Your task to perform on an android device: check android version Image 0: 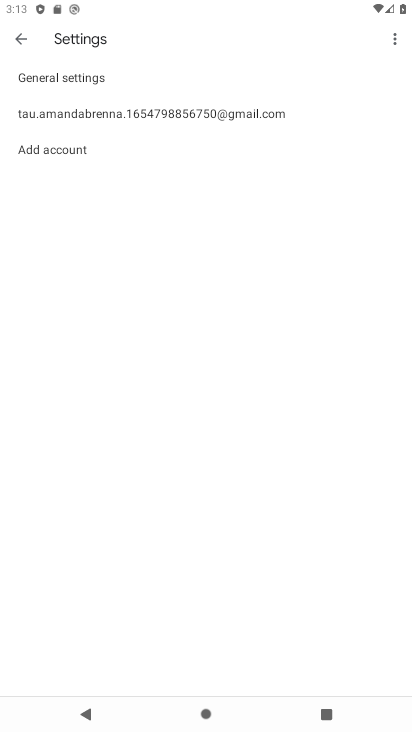
Step 0: press home button
Your task to perform on an android device: check android version Image 1: 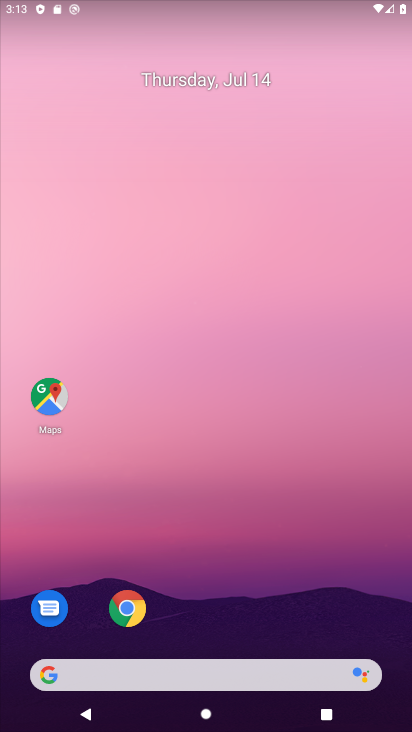
Step 1: drag from (185, 633) to (197, 195)
Your task to perform on an android device: check android version Image 2: 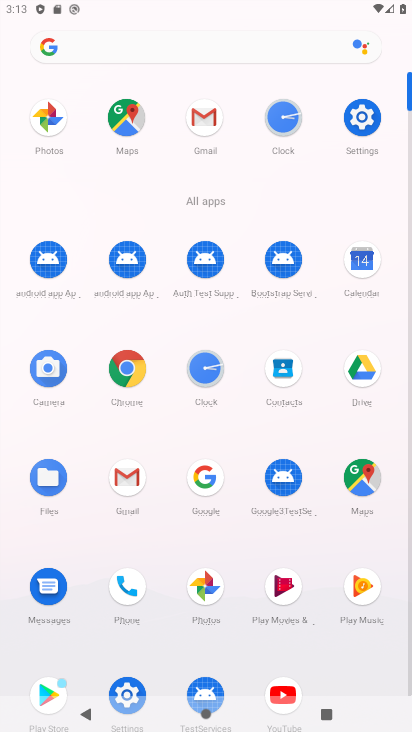
Step 2: click (122, 690)
Your task to perform on an android device: check android version Image 3: 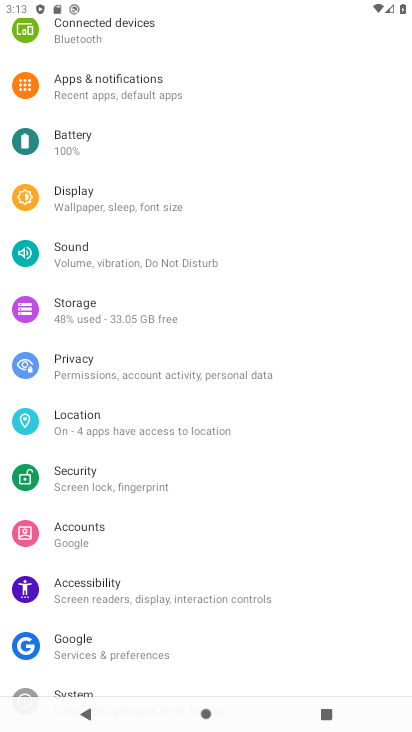
Step 3: drag from (160, 672) to (287, 275)
Your task to perform on an android device: check android version Image 4: 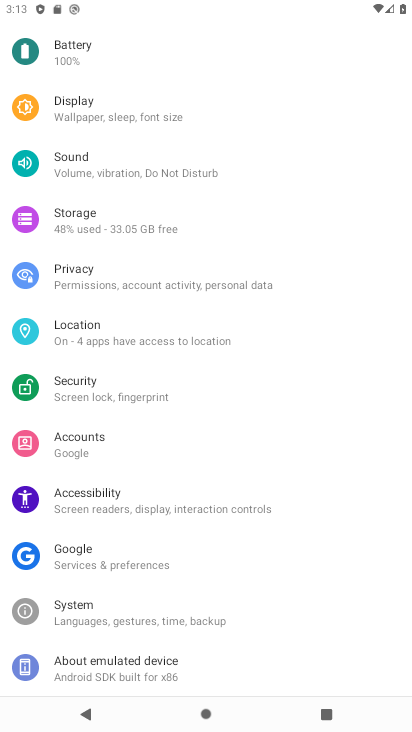
Step 4: click (145, 681)
Your task to perform on an android device: check android version Image 5: 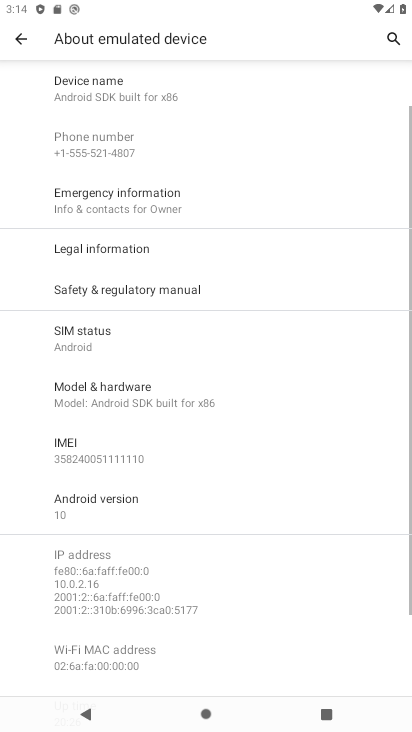
Step 5: click (139, 515)
Your task to perform on an android device: check android version Image 6: 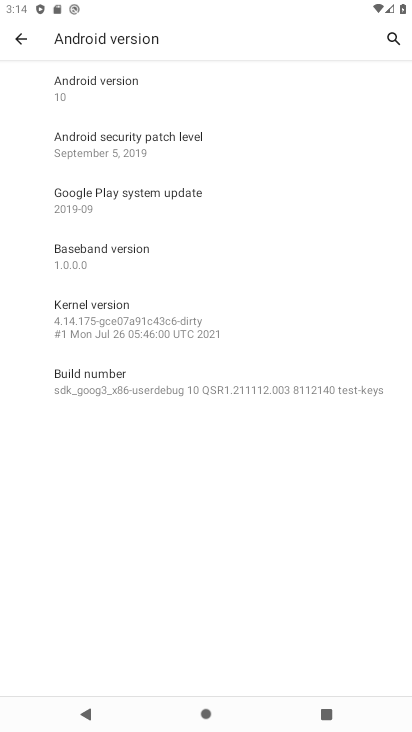
Step 6: task complete